Your task to perform on an android device: turn off location history Image 0: 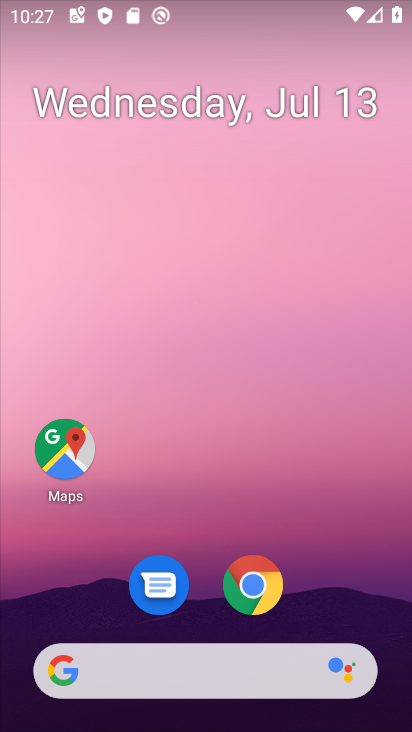
Step 0: drag from (312, 535) to (344, 71)
Your task to perform on an android device: turn off location history Image 1: 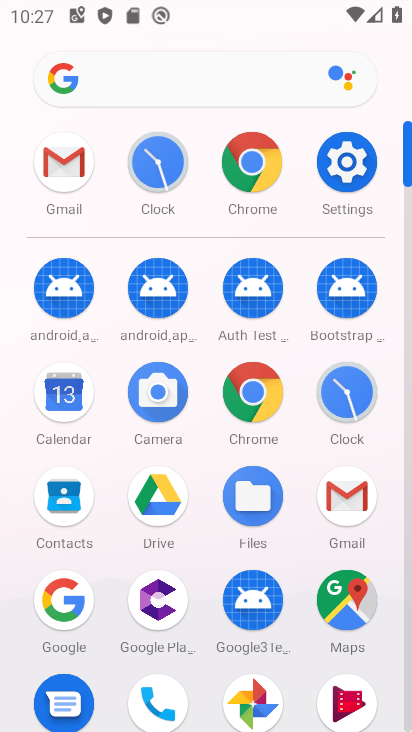
Step 1: click (346, 170)
Your task to perform on an android device: turn off location history Image 2: 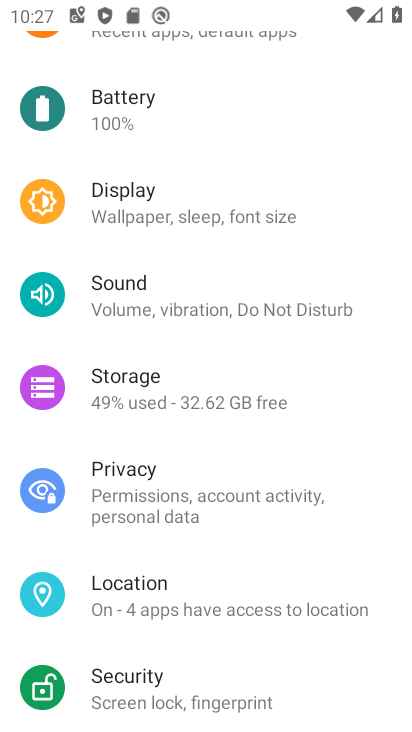
Step 2: click (232, 602)
Your task to perform on an android device: turn off location history Image 3: 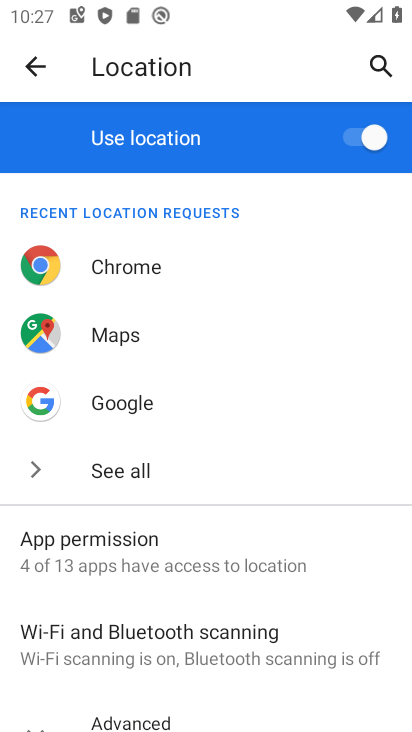
Step 3: drag from (251, 419) to (271, 194)
Your task to perform on an android device: turn off location history Image 4: 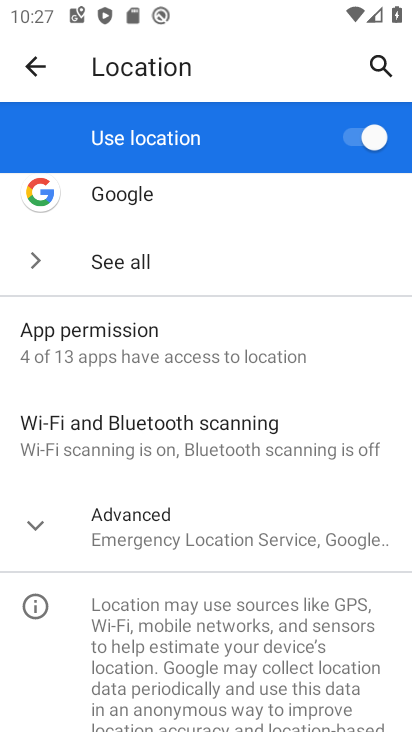
Step 4: click (36, 525)
Your task to perform on an android device: turn off location history Image 5: 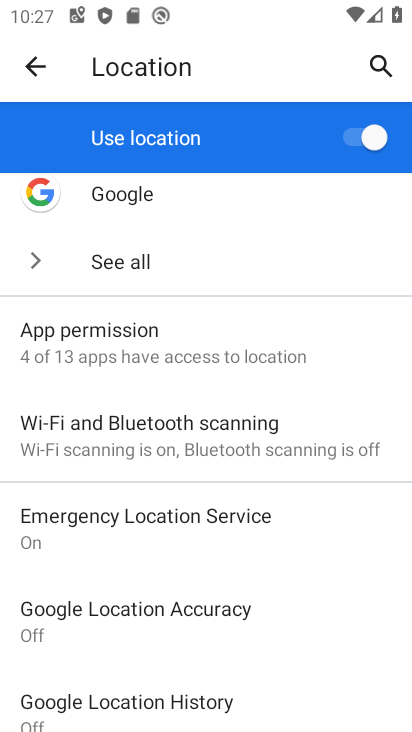
Step 5: task complete